Your task to perform on an android device: Open network settings Image 0: 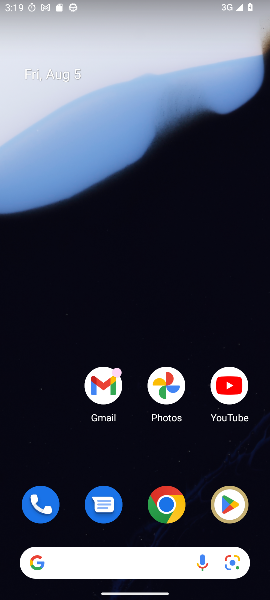
Step 0: drag from (49, 527) to (120, 174)
Your task to perform on an android device: Open network settings Image 1: 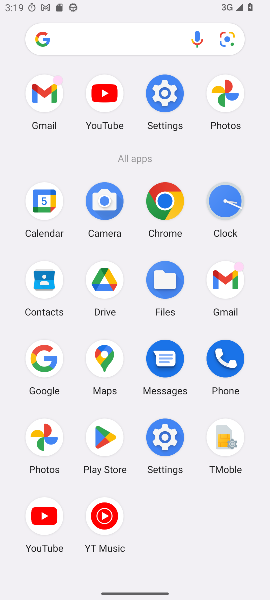
Step 1: click (175, 442)
Your task to perform on an android device: Open network settings Image 2: 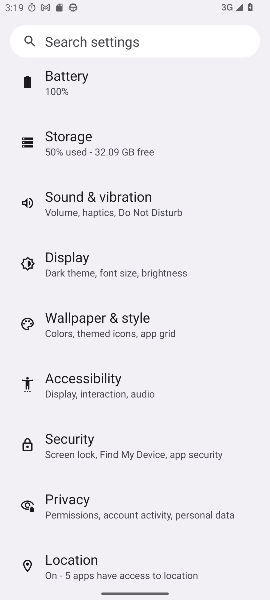
Step 2: drag from (134, 95) to (165, 587)
Your task to perform on an android device: Open network settings Image 3: 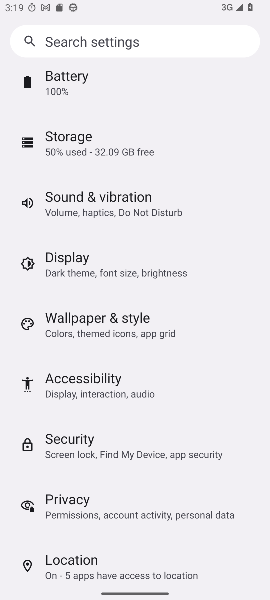
Step 3: drag from (156, 145) to (134, 595)
Your task to perform on an android device: Open network settings Image 4: 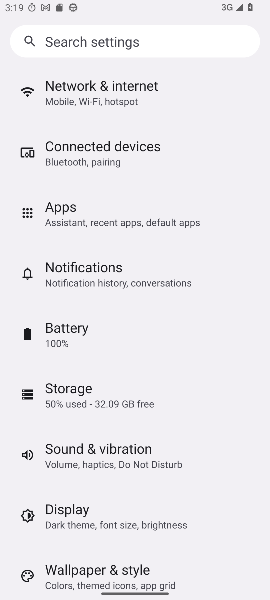
Step 4: drag from (118, 92) to (98, 458)
Your task to perform on an android device: Open network settings Image 5: 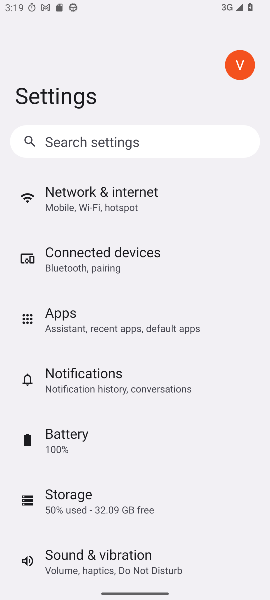
Step 5: click (84, 218)
Your task to perform on an android device: Open network settings Image 6: 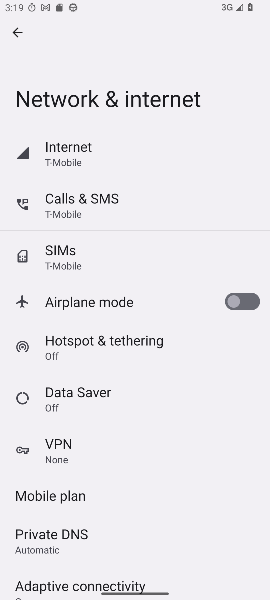
Step 6: task complete